Your task to perform on an android device: turn pop-ups on in chrome Image 0: 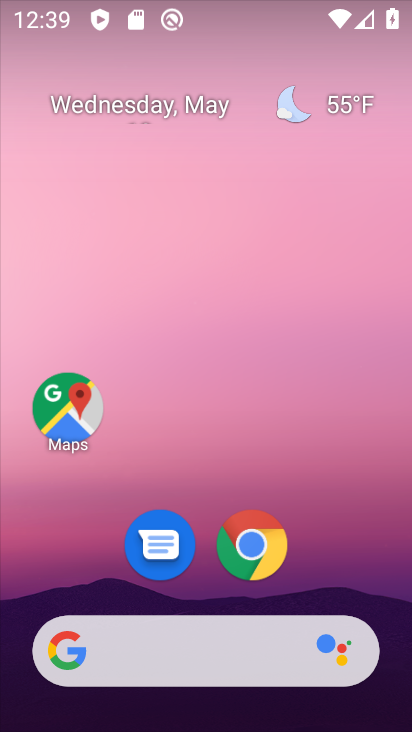
Step 0: click (254, 541)
Your task to perform on an android device: turn pop-ups on in chrome Image 1: 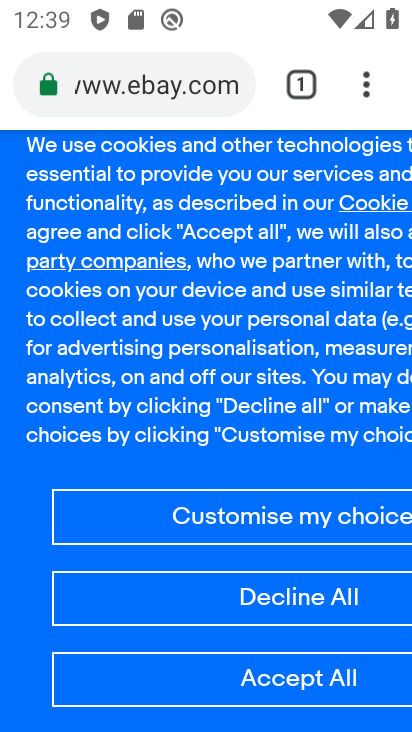
Step 1: click (369, 77)
Your task to perform on an android device: turn pop-ups on in chrome Image 2: 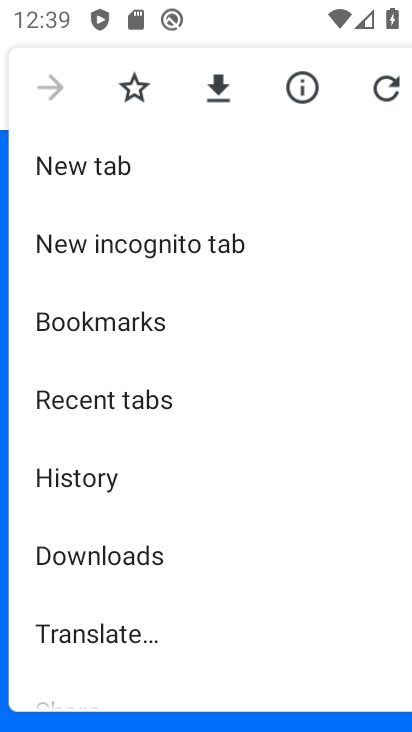
Step 2: drag from (259, 597) to (234, 205)
Your task to perform on an android device: turn pop-ups on in chrome Image 3: 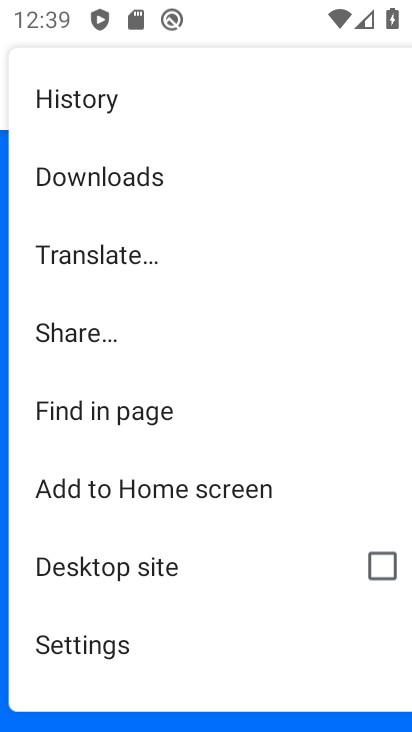
Step 3: click (131, 642)
Your task to perform on an android device: turn pop-ups on in chrome Image 4: 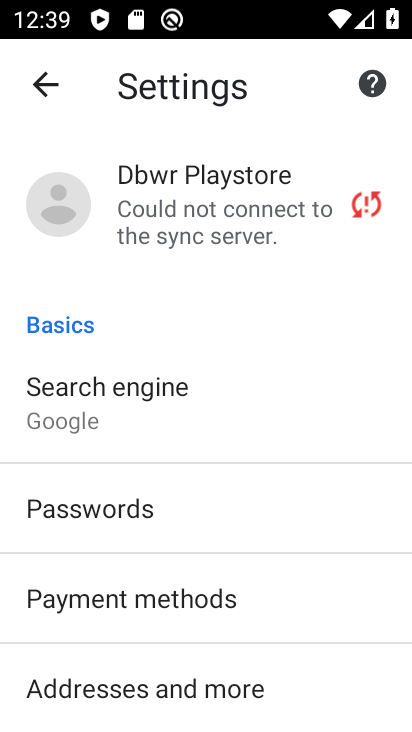
Step 4: drag from (193, 593) to (167, 226)
Your task to perform on an android device: turn pop-ups on in chrome Image 5: 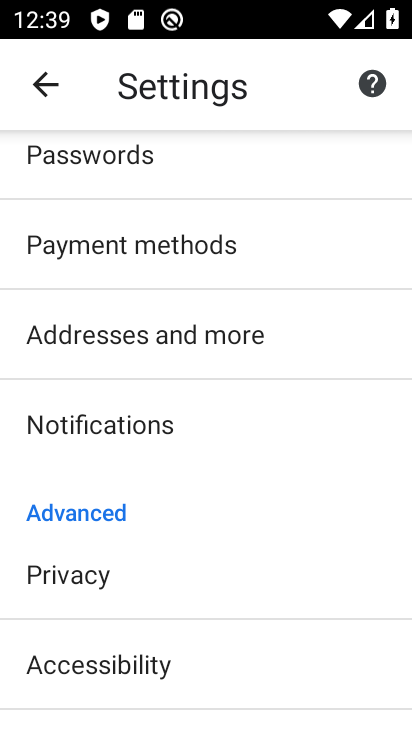
Step 5: drag from (114, 668) to (100, 315)
Your task to perform on an android device: turn pop-ups on in chrome Image 6: 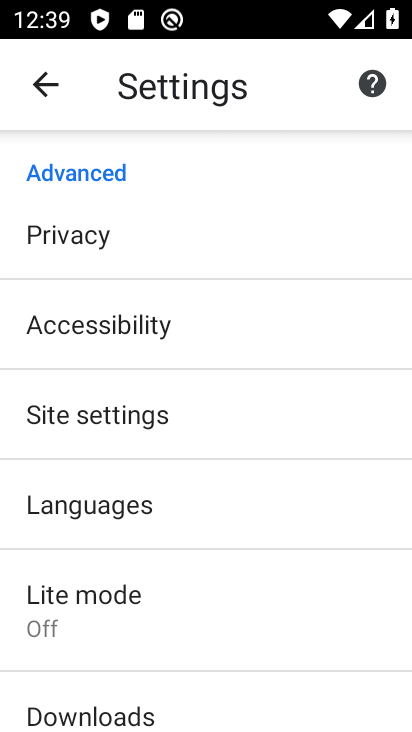
Step 6: click (92, 427)
Your task to perform on an android device: turn pop-ups on in chrome Image 7: 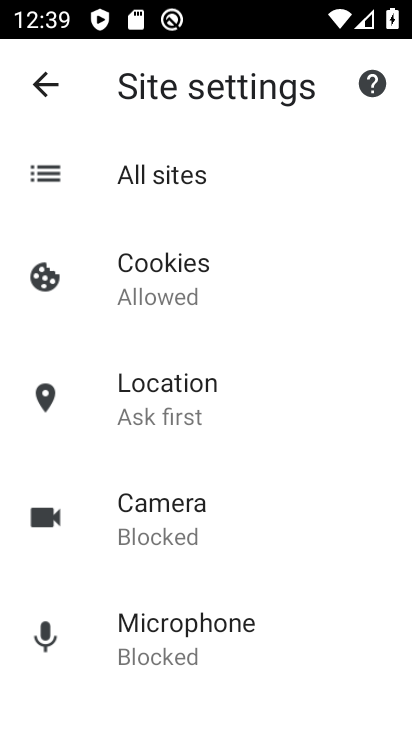
Step 7: drag from (226, 532) to (224, 237)
Your task to perform on an android device: turn pop-ups on in chrome Image 8: 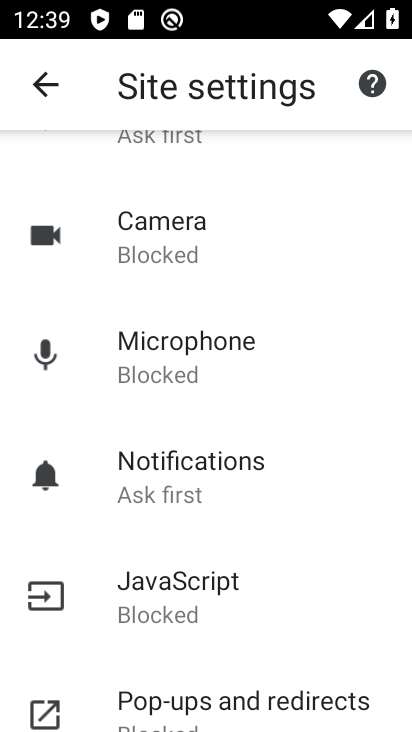
Step 8: drag from (200, 670) to (185, 460)
Your task to perform on an android device: turn pop-ups on in chrome Image 9: 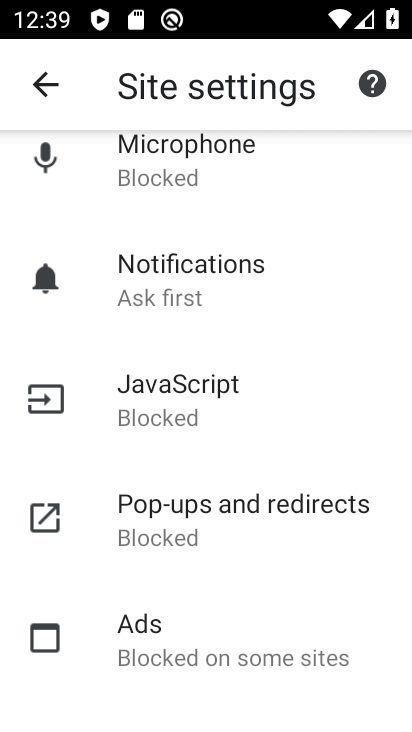
Step 9: click (174, 522)
Your task to perform on an android device: turn pop-ups on in chrome Image 10: 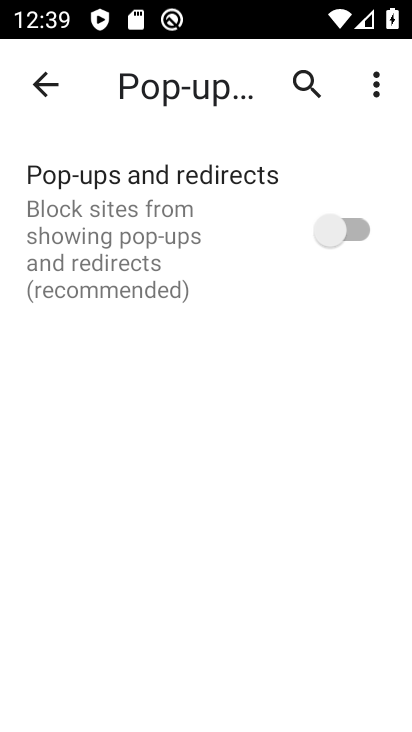
Step 10: click (336, 238)
Your task to perform on an android device: turn pop-ups on in chrome Image 11: 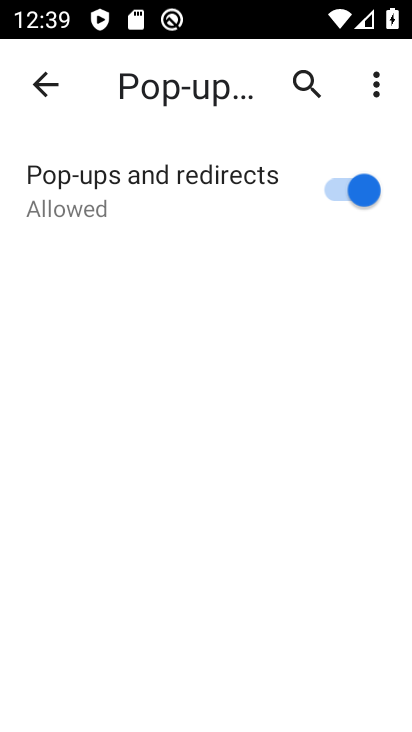
Step 11: task complete